Your task to perform on an android device: toggle sleep mode Image 0: 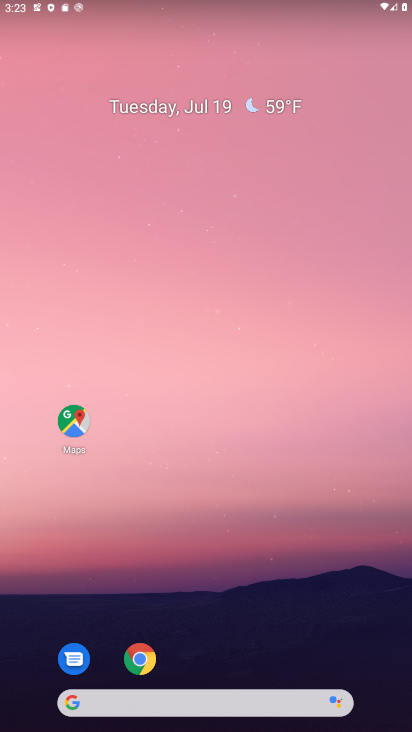
Step 0: drag from (185, 705) to (233, 297)
Your task to perform on an android device: toggle sleep mode Image 1: 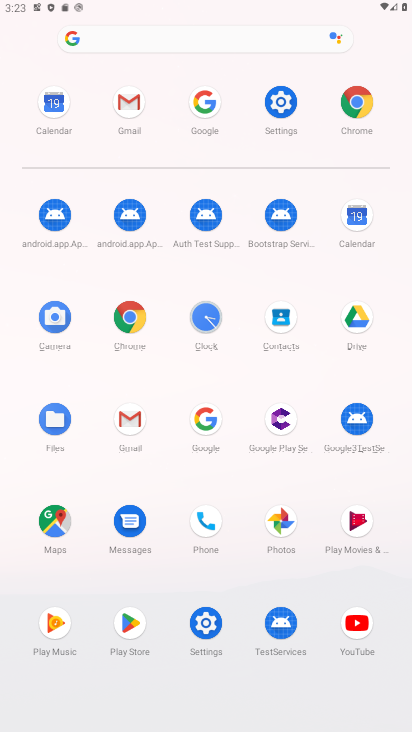
Step 1: click (207, 624)
Your task to perform on an android device: toggle sleep mode Image 2: 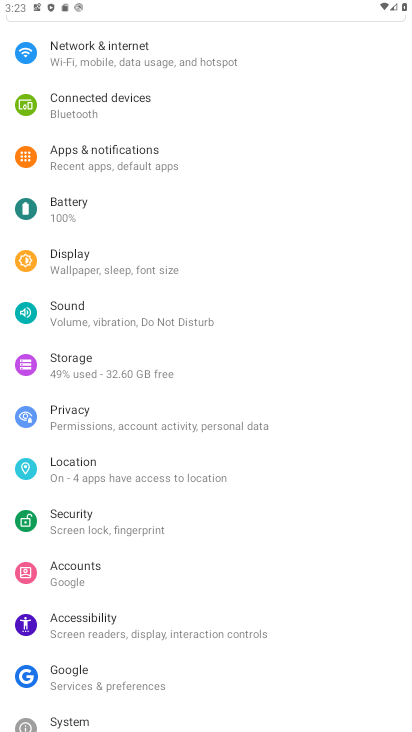
Step 2: click (74, 271)
Your task to perform on an android device: toggle sleep mode Image 3: 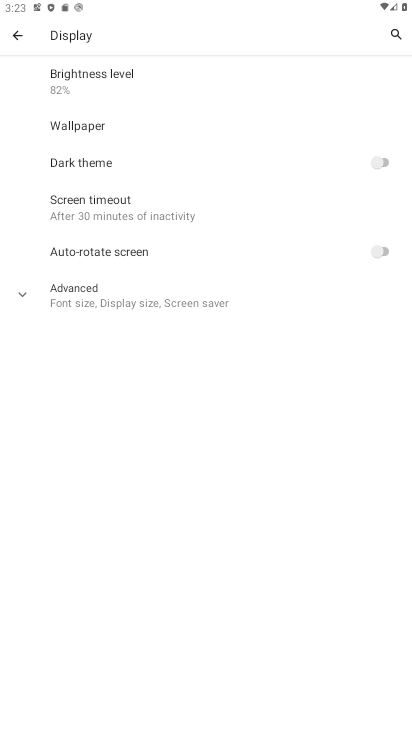
Step 3: click (91, 209)
Your task to perform on an android device: toggle sleep mode Image 4: 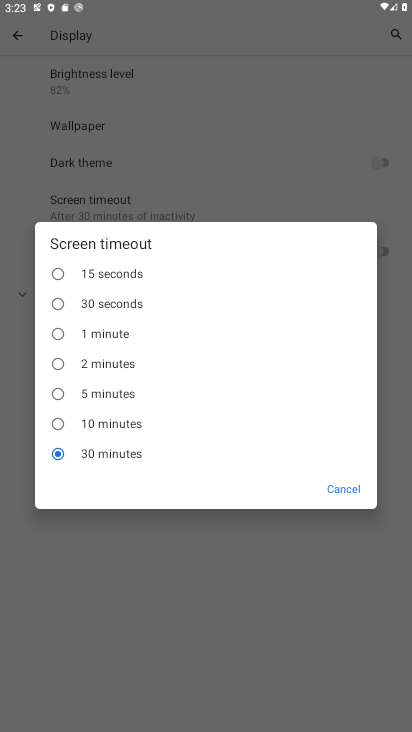
Step 4: click (334, 489)
Your task to perform on an android device: toggle sleep mode Image 5: 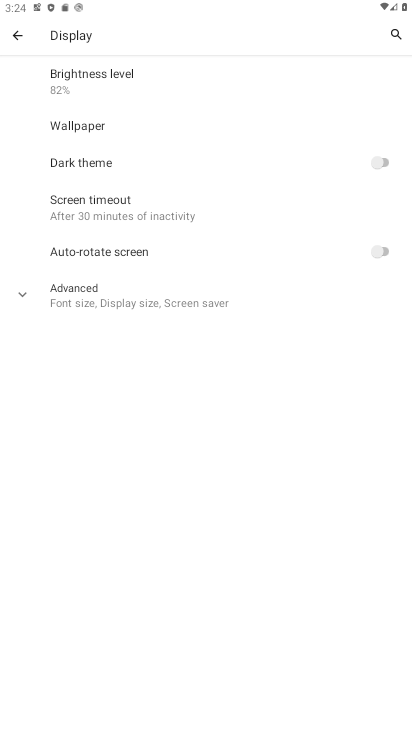
Step 5: task complete